Your task to perform on an android device: change keyboard looks Image 0: 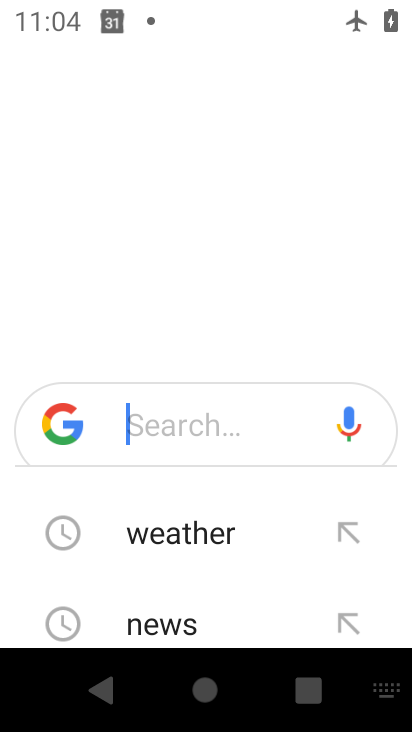
Step 0: press home button
Your task to perform on an android device: change keyboard looks Image 1: 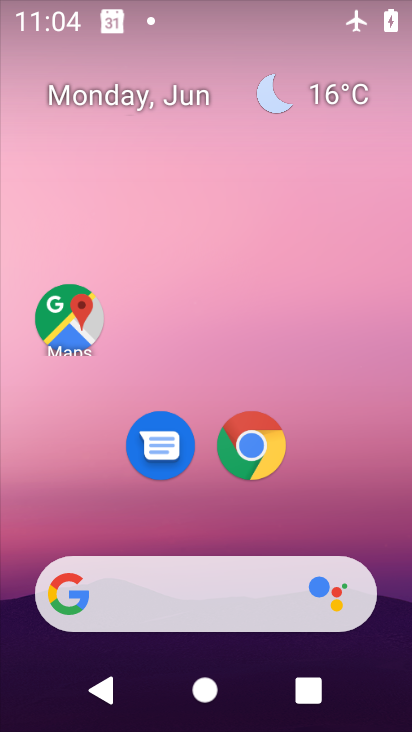
Step 1: drag from (219, 507) to (345, 3)
Your task to perform on an android device: change keyboard looks Image 2: 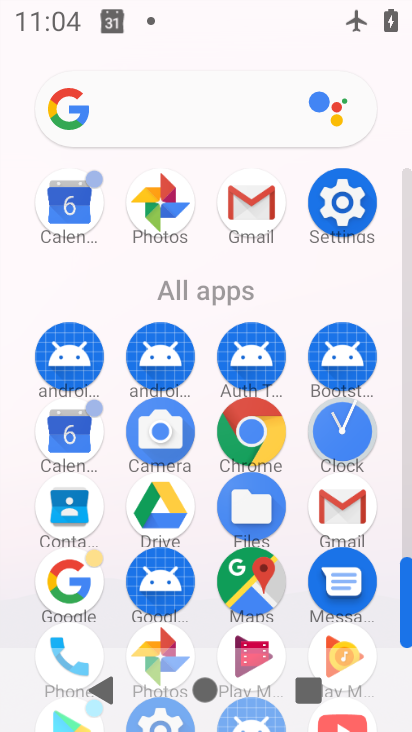
Step 2: click (331, 213)
Your task to perform on an android device: change keyboard looks Image 3: 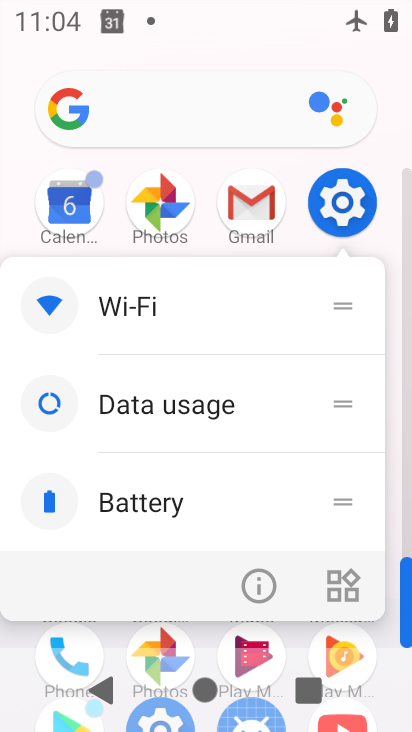
Step 3: click (331, 213)
Your task to perform on an android device: change keyboard looks Image 4: 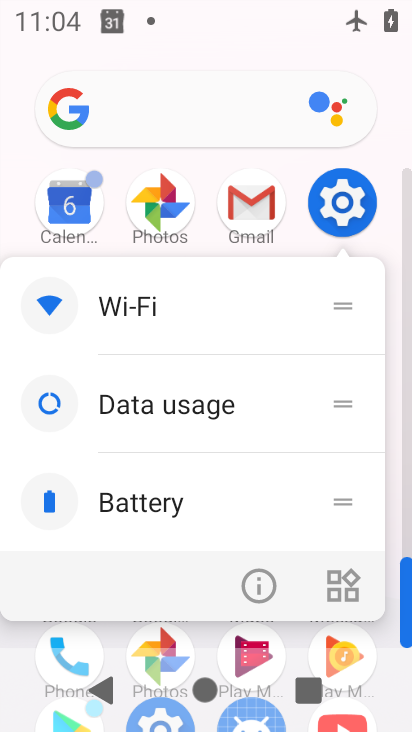
Step 4: click (329, 208)
Your task to perform on an android device: change keyboard looks Image 5: 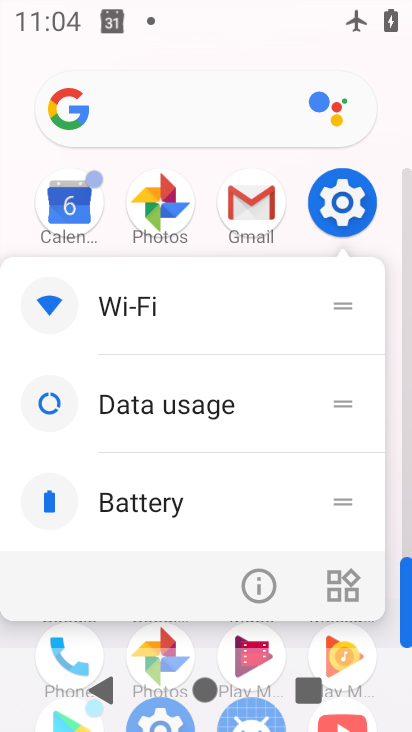
Step 5: press home button
Your task to perform on an android device: change keyboard looks Image 6: 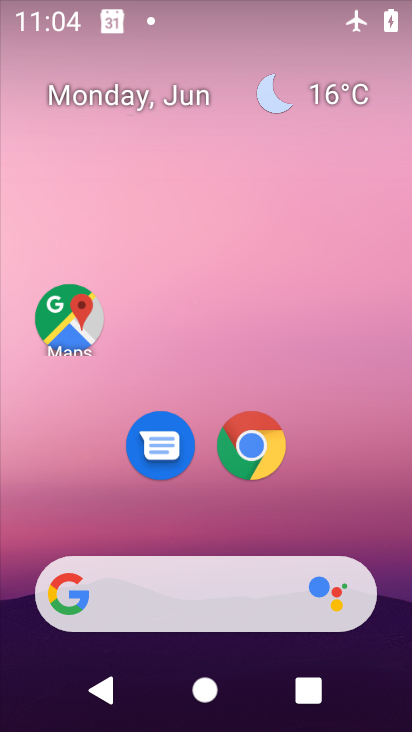
Step 6: drag from (335, 472) to (289, 108)
Your task to perform on an android device: change keyboard looks Image 7: 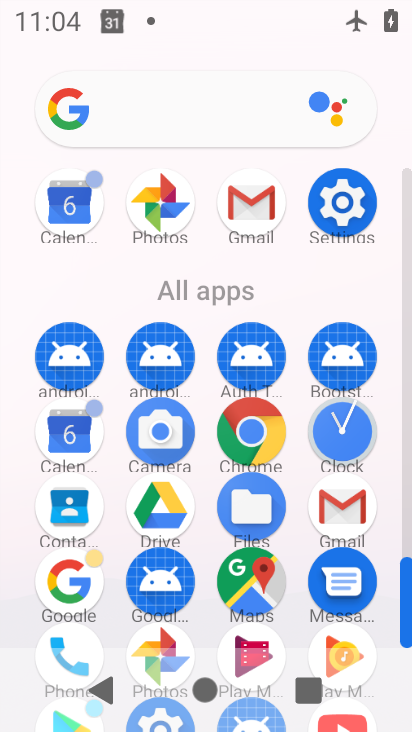
Step 7: click (339, 208)
Your task to perform on an android device: change keyboard looks Image 8: 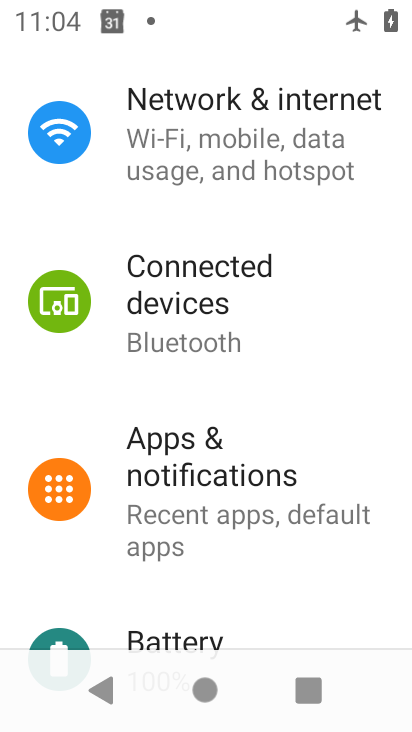
Step 8: drag from (306, 607) to (339, 2)
Your task to perform on an android device: change keyboard looks Image 9: 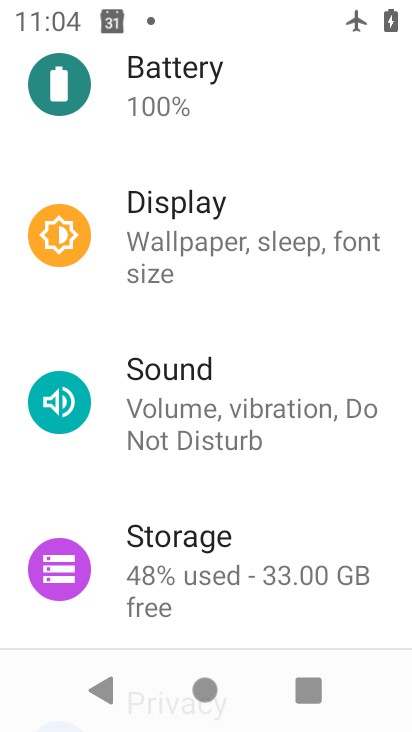
Step 9: drag from (321, 630) to (298, 16)
Your task to perform on an android device: change keyboard looks Image 10: 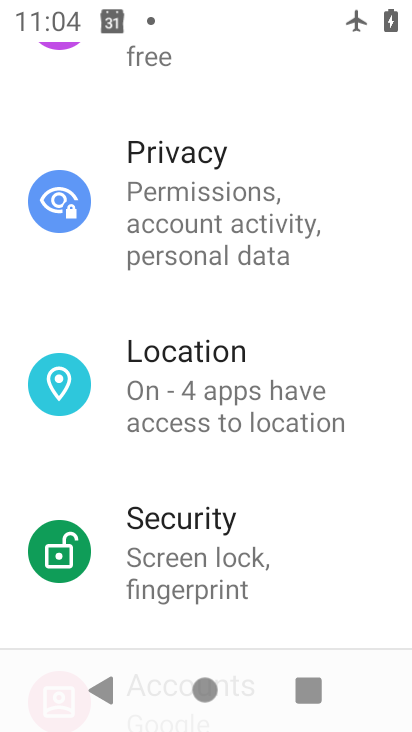
Step 10: drag from (305, 616) to (287, 62)
Your task to perform on an android device: change keyboard looks Image 11: 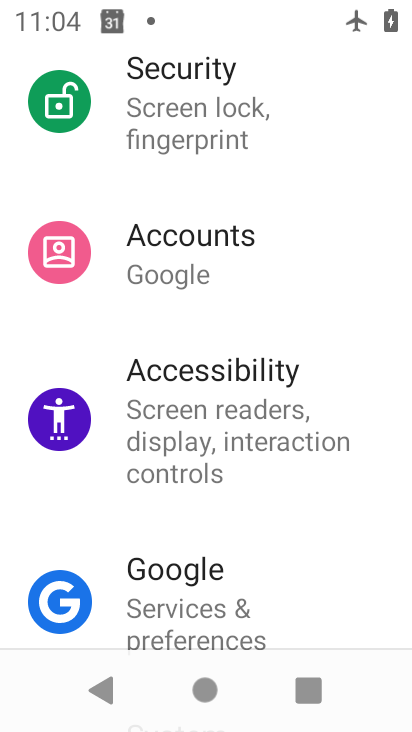
Step 11: drag from (317, 567) to (310, 100)
Your task to perform on an android device: change keyboard looks Image 12: 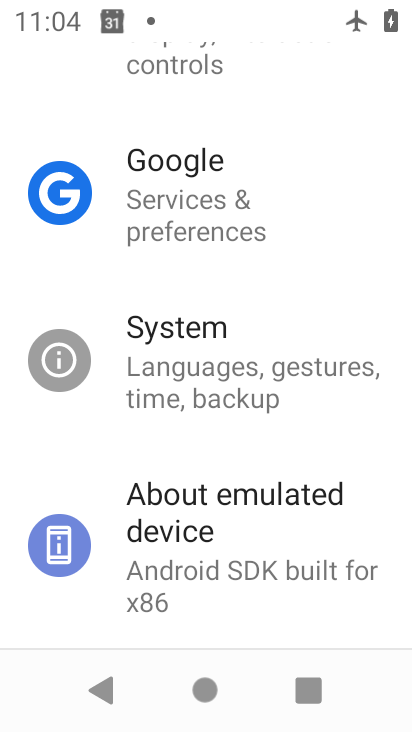
Step 12: click (249, 342)
Your task to perform on an android device: change keyboard looks Image 13: 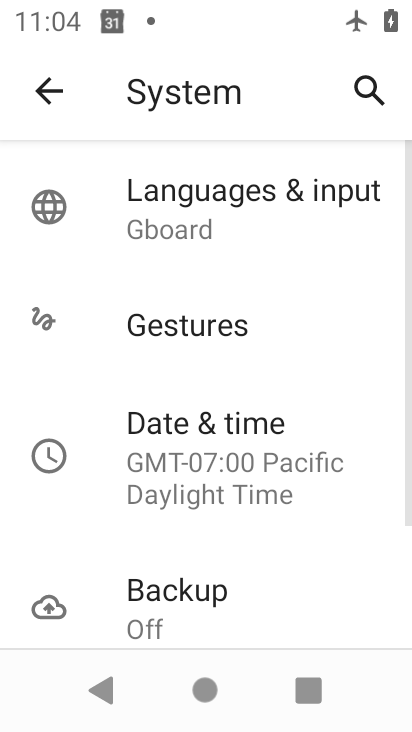
Step 13: click (209, 238)
Your task to perform on an android device: change keyboard looks Image 14: 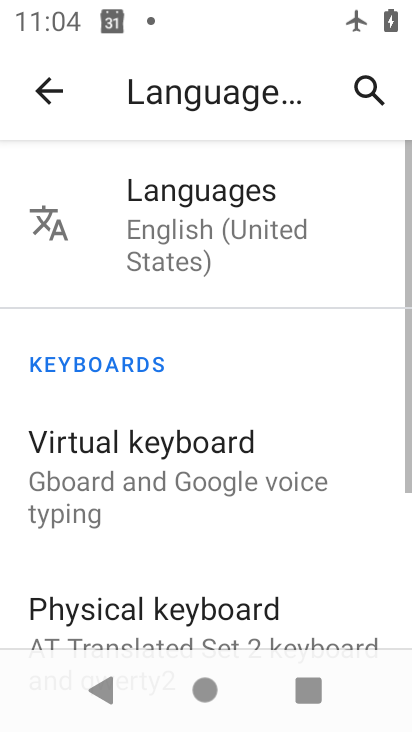
Step 14: click (156, 443)
Your task to perform on an android device: change keyboard looks Image 15: 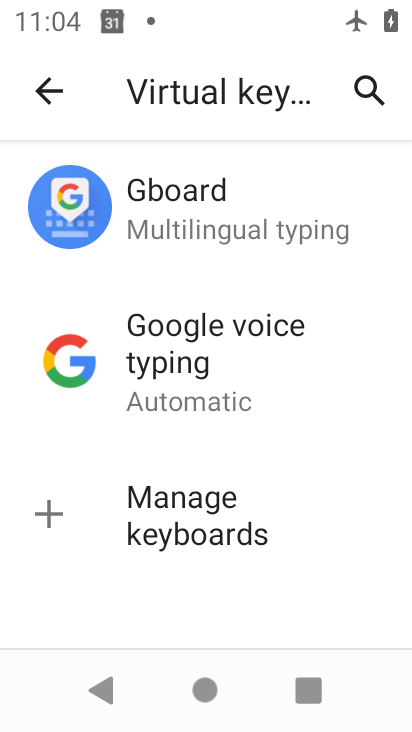
Step 15: click (181, 226)
Your task to perform on an android device: change keyboard looks Image 16: 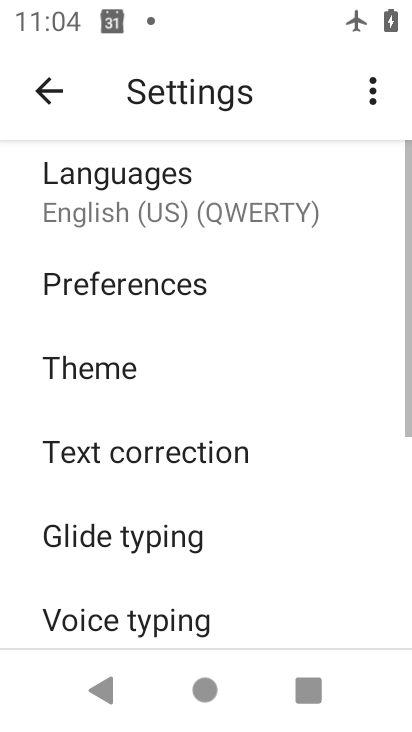
Step 16: click (121, 357)
Your task to perform on an android device: change keyboard looks Image 17: 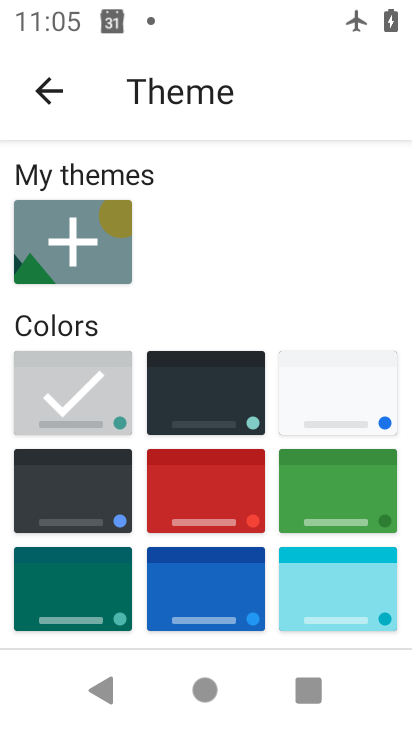
Step 17: click (215, 488)
Your task to perform on an android device: change keyboard looks Image 18: 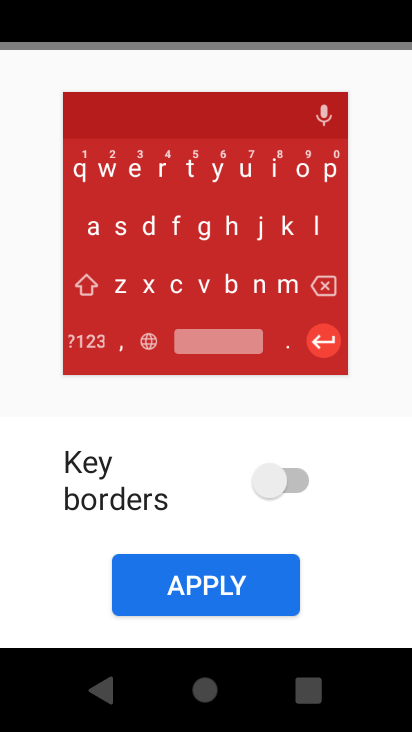
Step 18: click (238, 597)
Your task to perform on an android device: change keyboard looks Image 19: 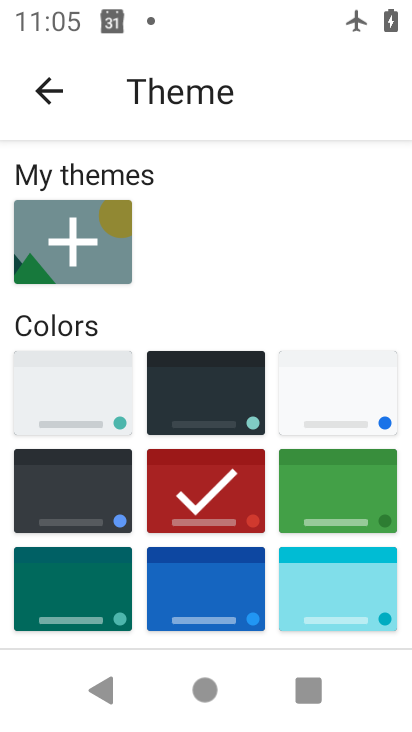
Step 19: task complete